Your task to perform on an android device: show emergency info Image 0: 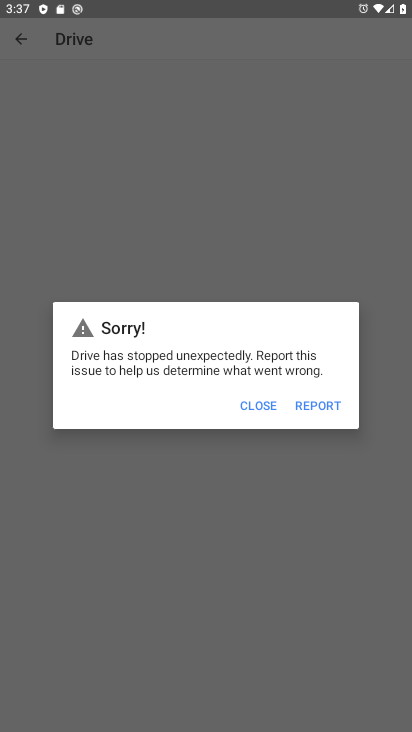
Step 0: press home button
Your task to perform on an android device: show emergency info Image 1: 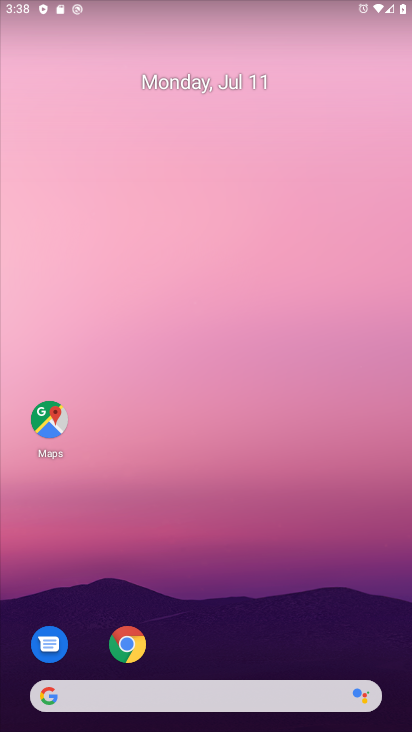
Step 1: drag from (206, 689) to (245, 17)
Your task to perform on an android device: show emergency info Image 2: 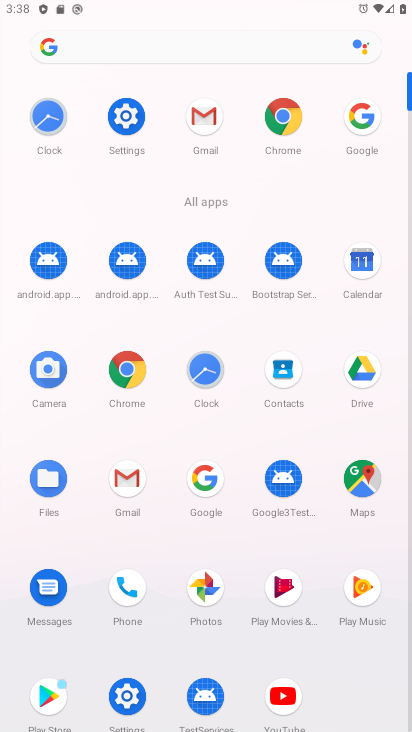
Step 2: click (118, 118)
Your task to perform on an android device: show emergency info Image 3: 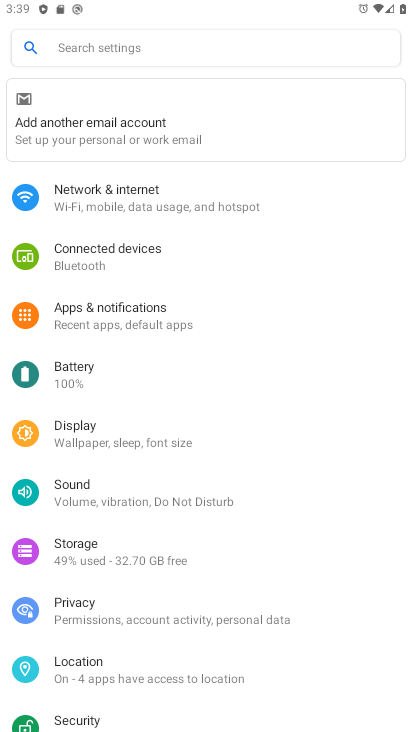
Step 3: drag from (155, 706) to (191, 175)
Your task to perform on an android device: show emergency info Image 4: 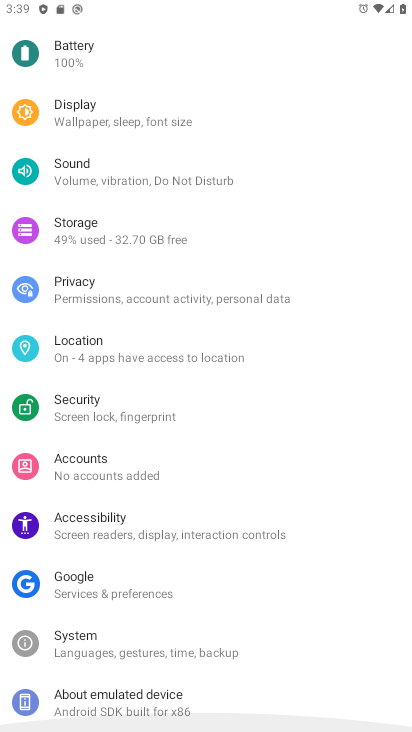
Step 4: drag from (167, 585) to (220, 149)
Your task to perform on an android device: show emergency info Image 5: 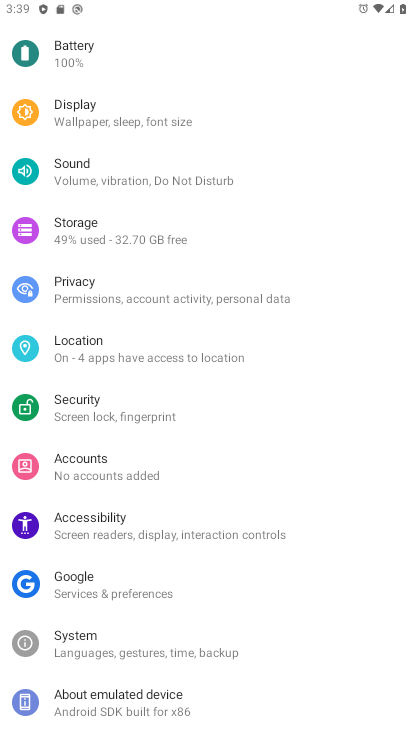
Step 5: click (154, 711)
Your task to perform on an android device: show emergency info Image 6: 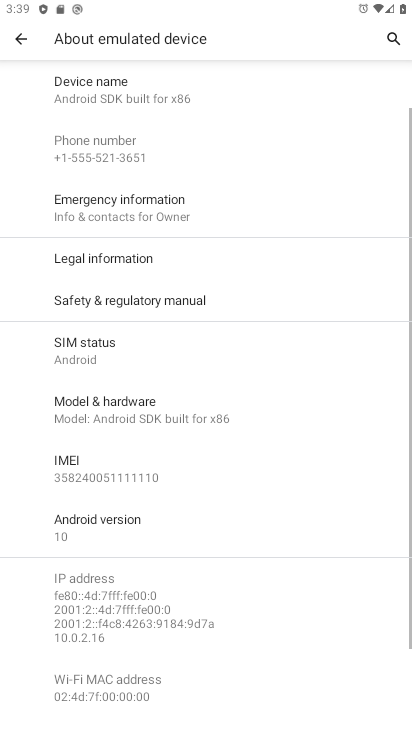
Step 6: click (133, 211)
Your task to perform on an android device: show emergency info Image 7: 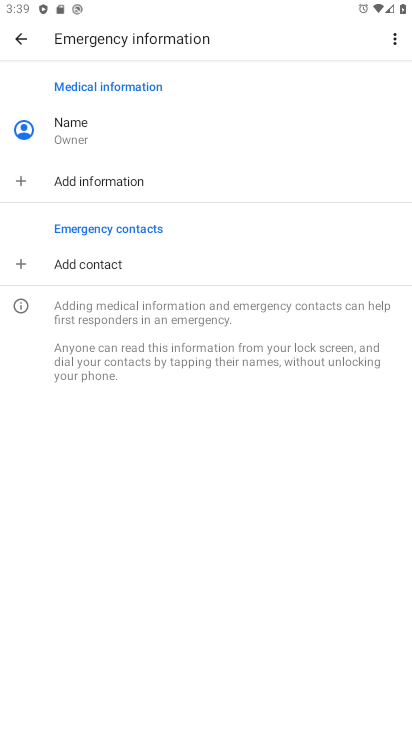
Step 7: task complete